Your task to perform on an android device: turn on data saver in the chrome app Image 0: 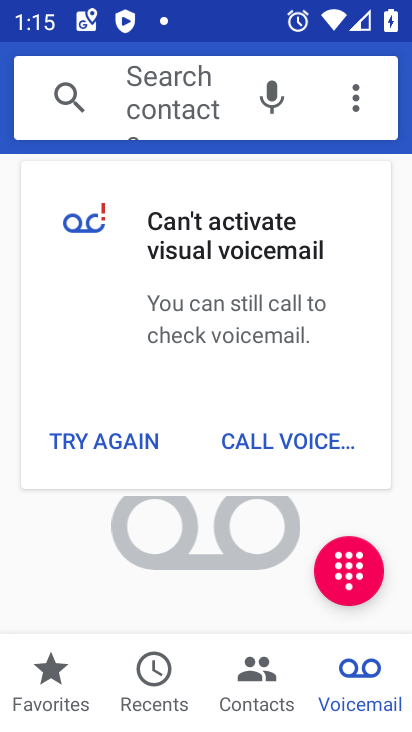
Step 0: press home button
Your task to perform on an android device: turn on data saver in the chrome app Image 1: 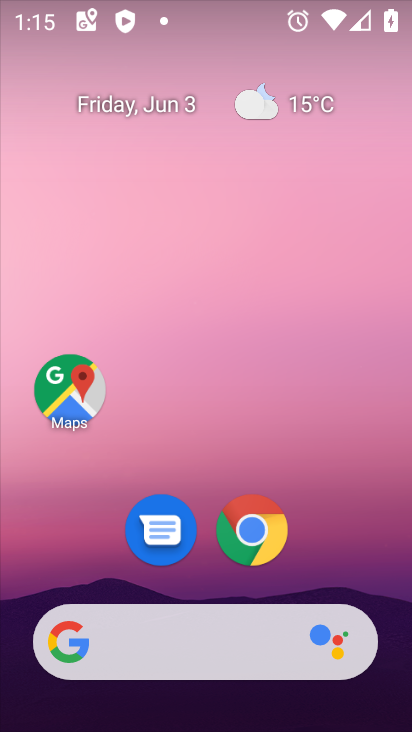
Step 1: click (272, 546)
Your task to perform on an android device: turn on data saver in the chrome app Image 2: 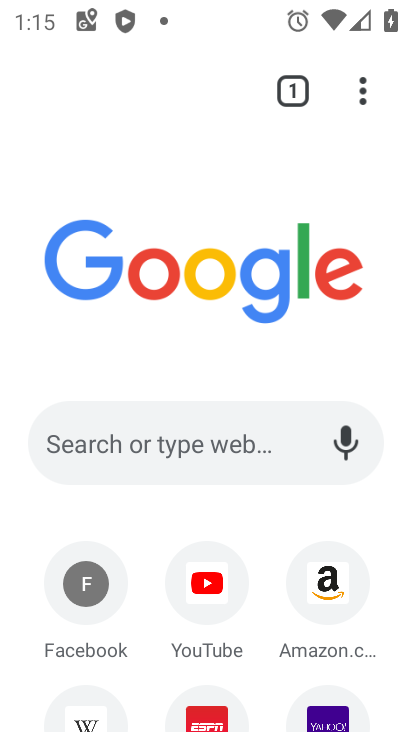
Step 2: drag from (370, 92) to (199, 524)
Your task to perform on an android device: turn on data saver in the chrome app Image 3: 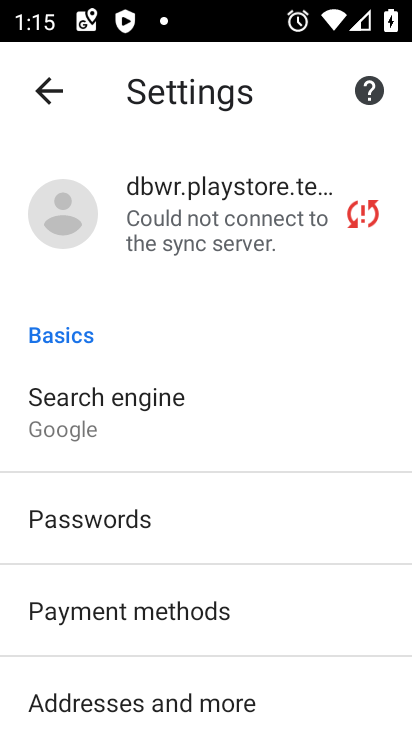
Step 3: drag from (306, 401) to (340, 8)
Your task to perform on an android device: turn on data saver in the chrome app Image 4: 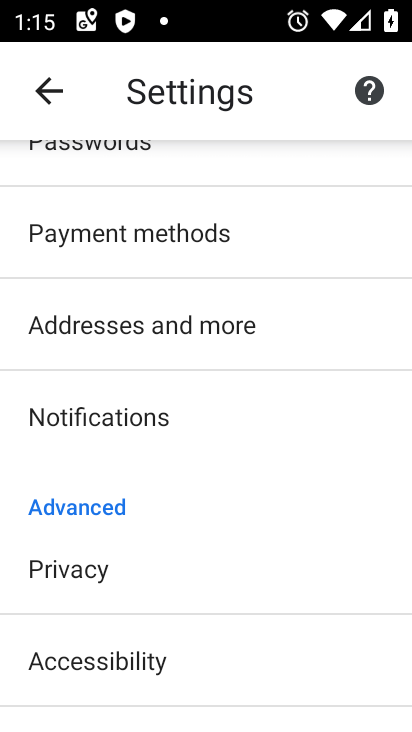
Step 4: drag from (271, 507) to (289, 68)
Your task to perform on an android device: turn on data saver in the chrome app Image 5: 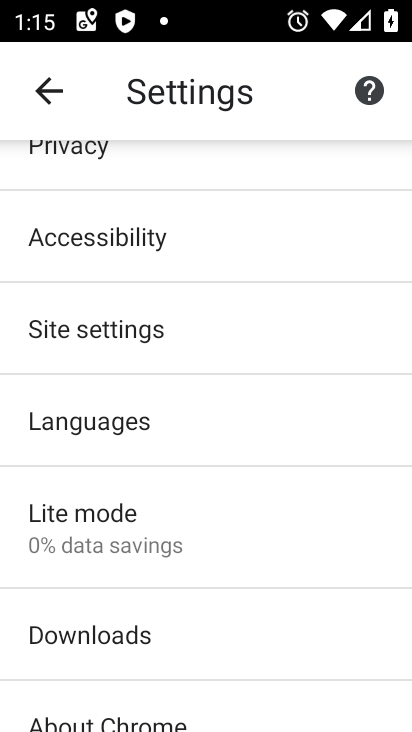
Step 5: click (227, 532)
Your task to perform on an android device: turn on data saver in the chrome app Image 6: 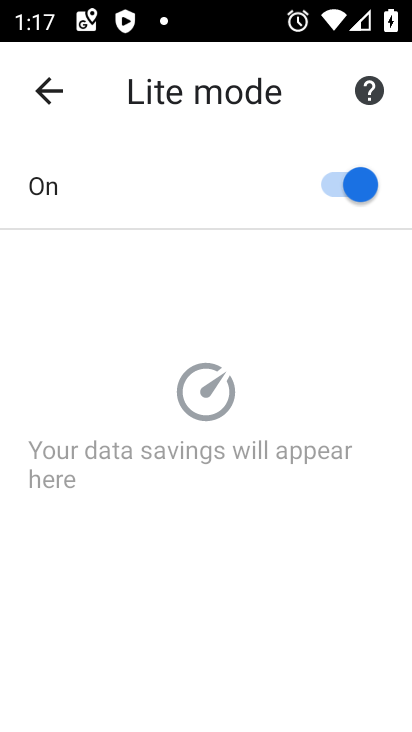
Step 6: task complete